Your task to perform on an android device: Open calendar and show me the fourth week of next month Image 0: 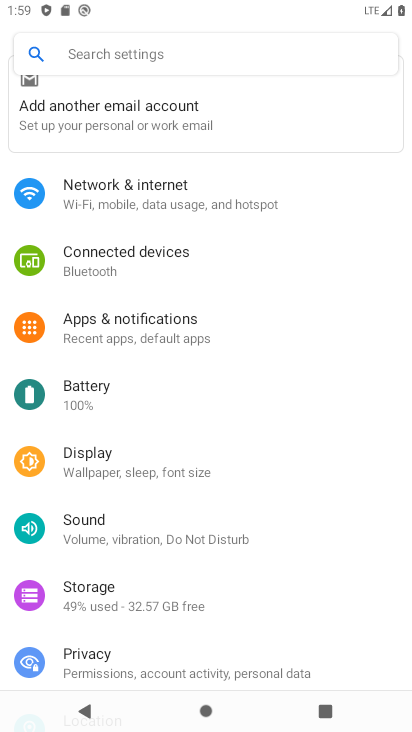
Step 0: press home button
Your task to perform on an android device: Open calendar and show me the fourth week of next month Image 1: 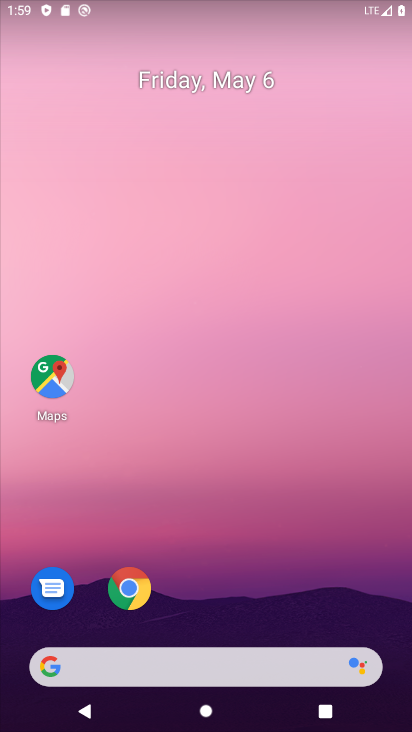
Step 1: drag from (355, 563) to (303, 79)
Your task to perform on an android device: Open calendar and show me the fourth week of next month Image 2: 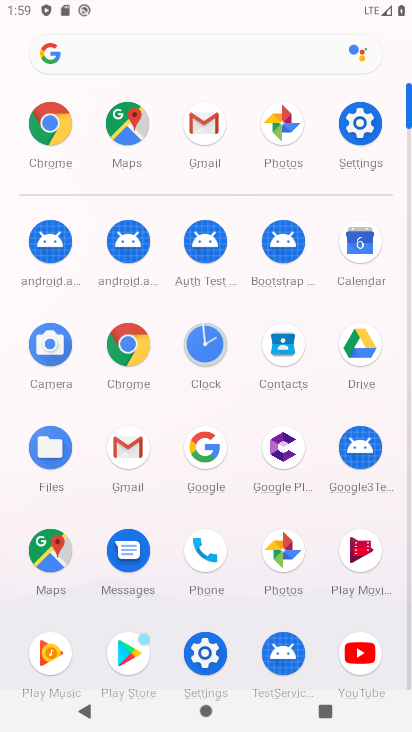
Step 2: click (354, 247)
Your task to perform on an android device: Open calendar and show me the fourth week of next month Image 3: 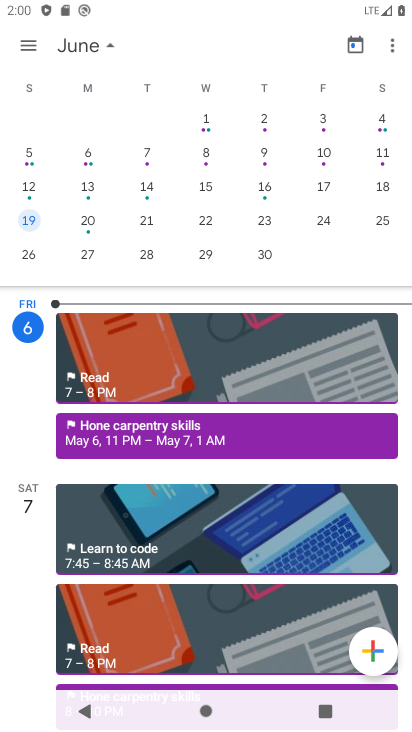
Step 3: task complete